Your task to perform on an android device: Do I have any events today? Image 0: 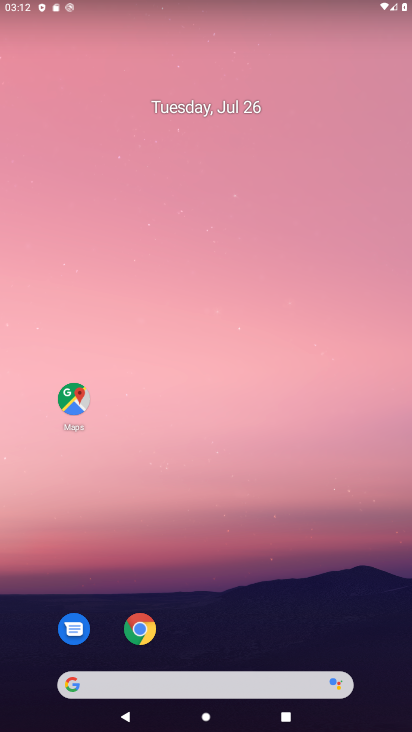
Step 0: click (211, 193)
Your task to perform on an android device: Do I have any events today? Image 1: 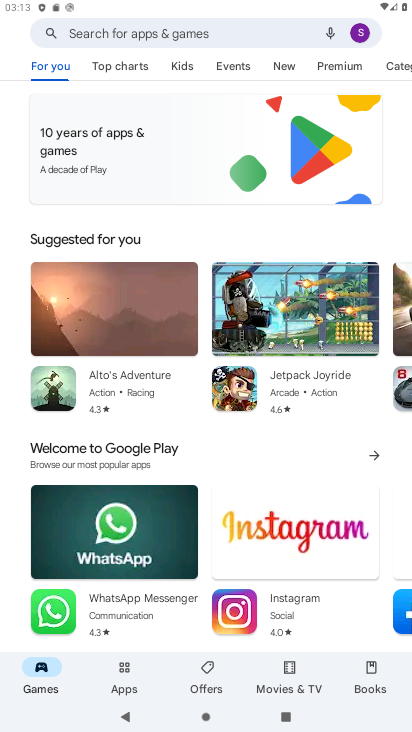
Step 1: press home button
Your task to perform on an android device: Do I have any events today? Image 2: 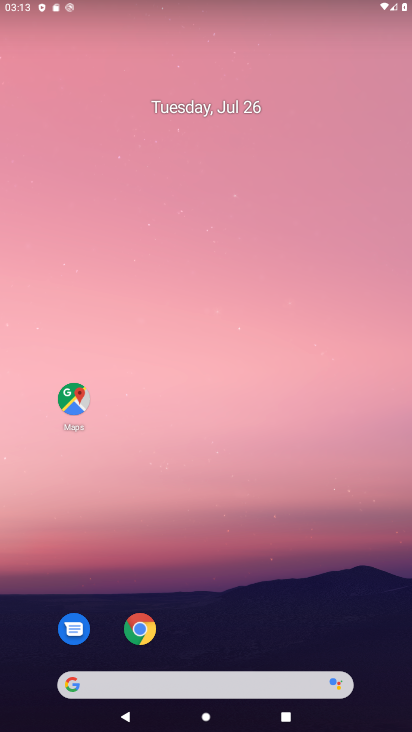
Step 2: drag from (334, 624) to (377, 120)
Your task to perform on an android device: Do I have any events today? Image 3: 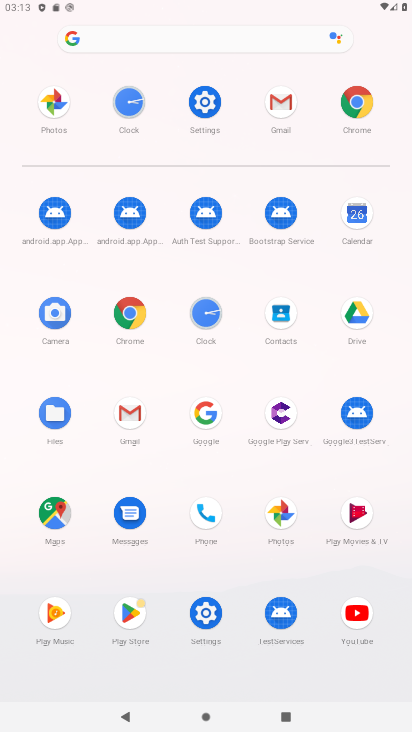
Step 3: click (374, 210)
Your task to perform on an android device: Do I have any events today? Image 4: 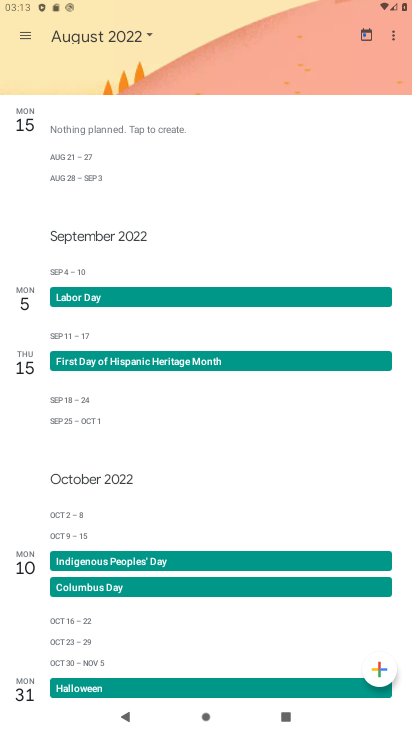
Step 4: click (138, 43)
Your task to perform on an android device: Do I have any events today? Image 5: 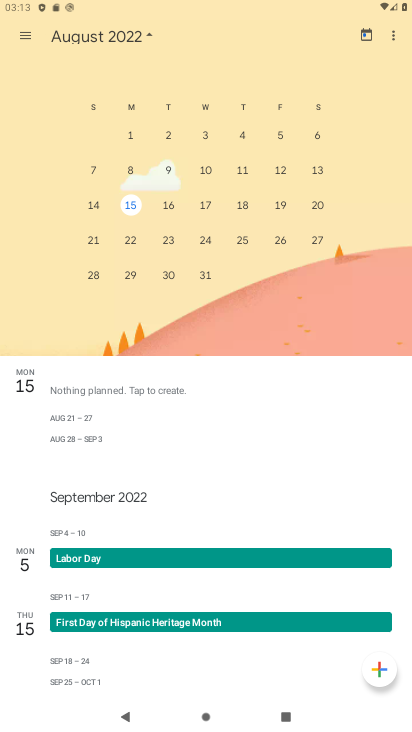
Step 5: drag from (17, 118) to (330, 212)
Your task to perform on an android device: Do I have any events today? Image 6: 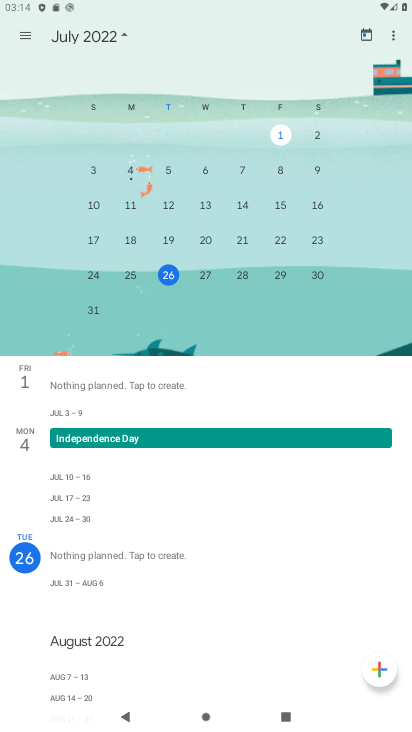
Step 6: click (165, 275)
Your task to perform on an android device: Do I have any events today? Image 7: 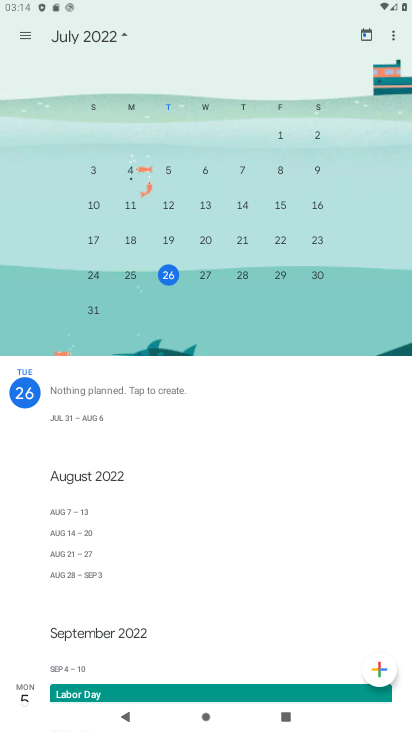
Step 7: task complete